Your task to perform on an android device: check out phone information Image 0: 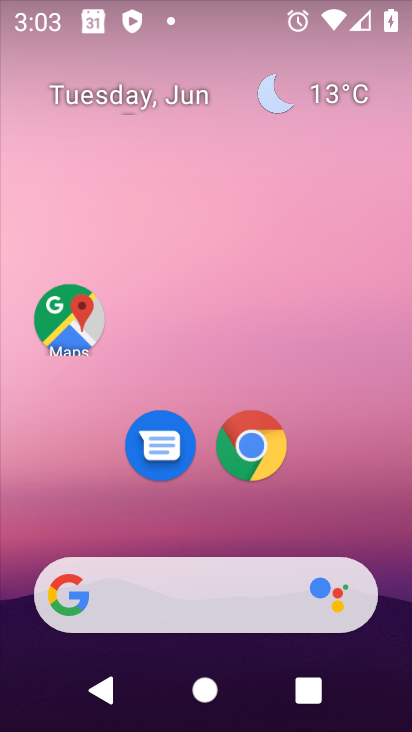
Step 0: drag from (394, 617) to (350, 140)
Your task to perform on an android device: check out phone information Image 1: 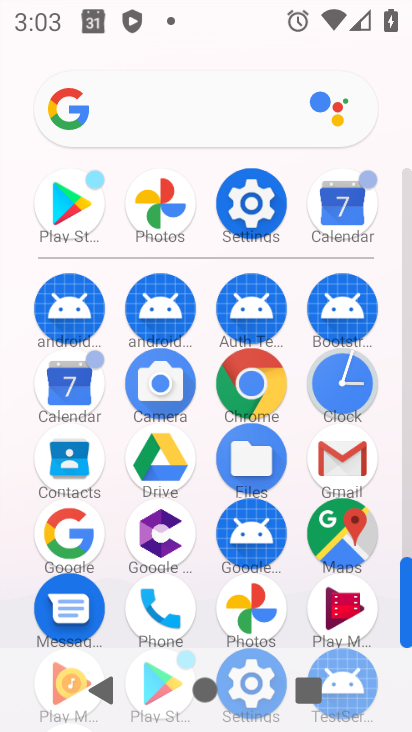
Step 1: click (406, 517)
Your task to perform on an android device: check out phone information Image 2: 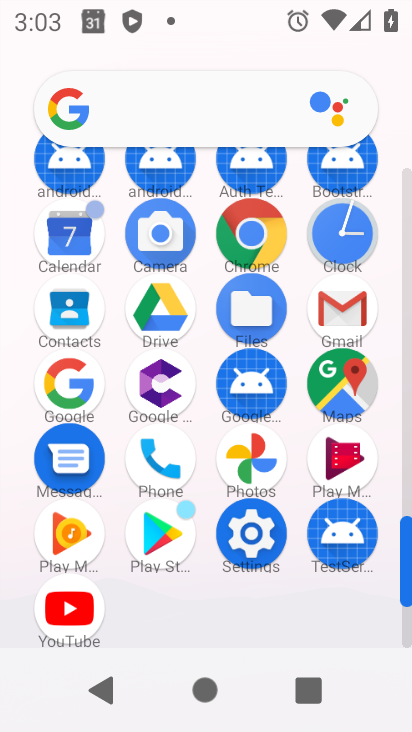
Step 2: click (254, 535)
Your task to perform on an android device: check out phone information Image 3: 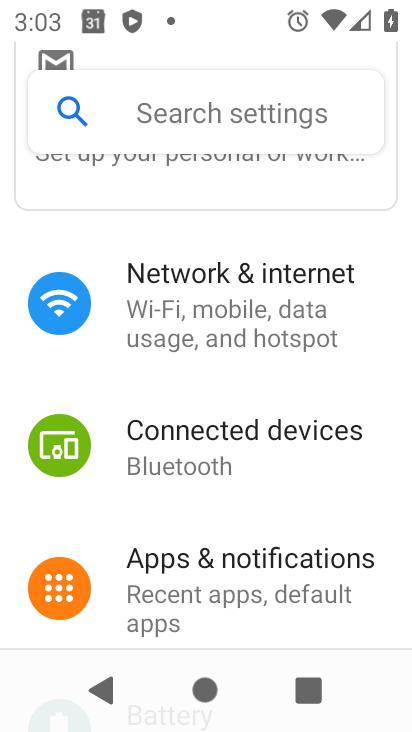
Step 3: drag from (360, 619) to (318, 205)
Your task to perform on an android device: check out phone information Image 4: 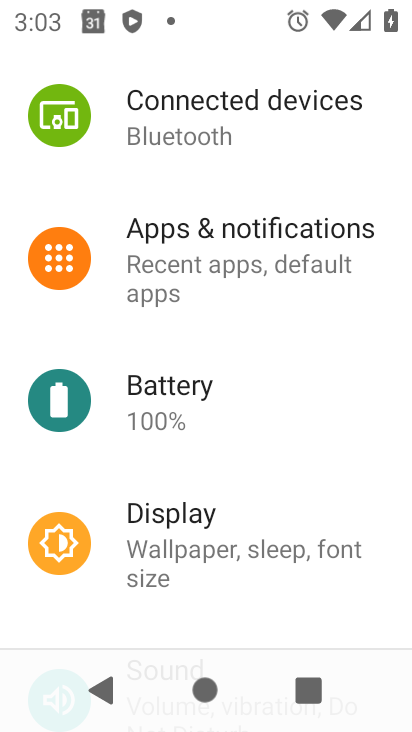
Step 4: drag from (367, 590) to (307, 217)
Your task to perform on an android device: check out phone information Image 5: 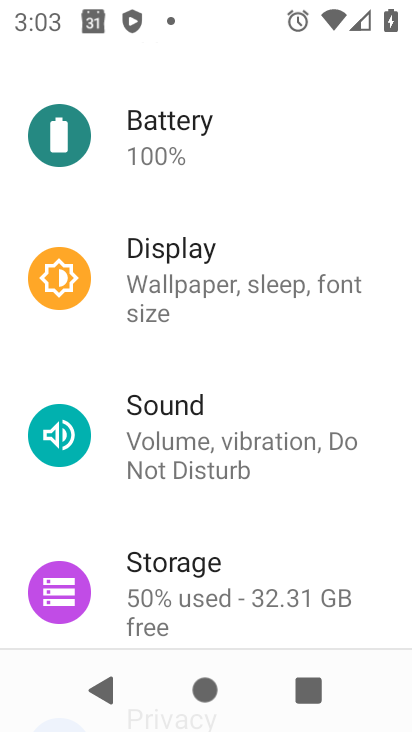
Step 5: drag from (342, 522) to (326, 73)
Your task to perform on an android device: check out phone information Image 6: 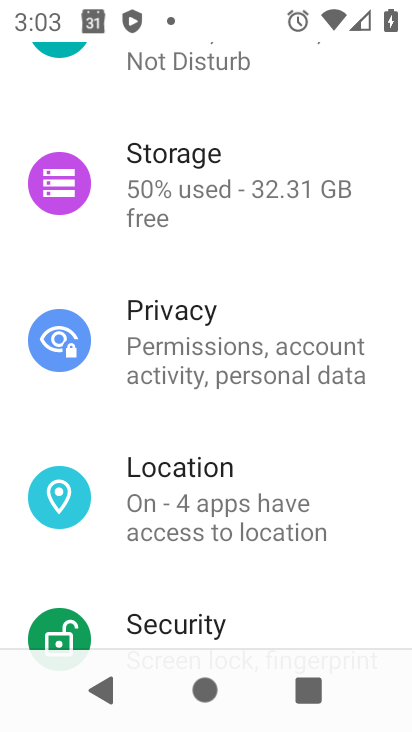
Step 6: drag from (326, 492) to (307, 255)
Your task to perform on an android device: check out phone information Image 7: 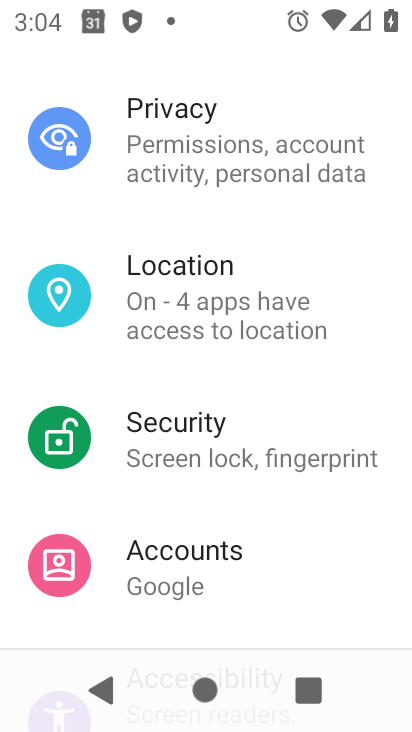
Step 7: drag from (322, 573) to (343, 235)
Your task to perform on an android device: check out phone information Image 8: 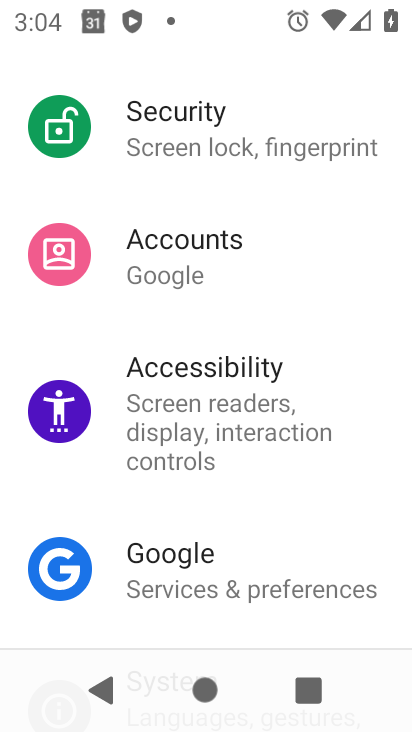
Step 8: drag from (323, 569) to (325, 269)
Your task to perform on an android device: check out phone information Image 9: 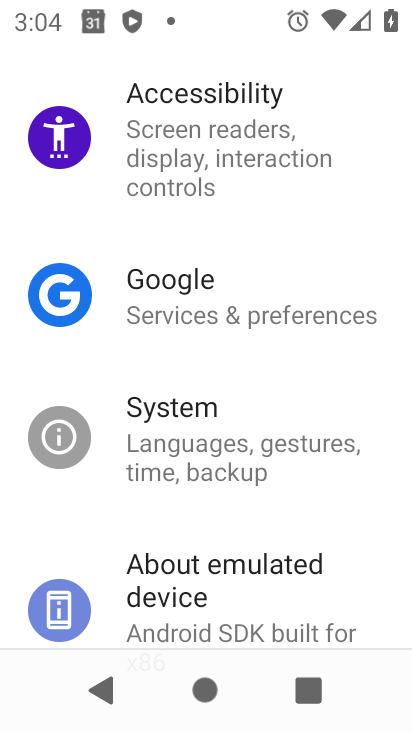
Step 9: click (191, 585)
Your task to perform on an android device: check out phone information Image 10: 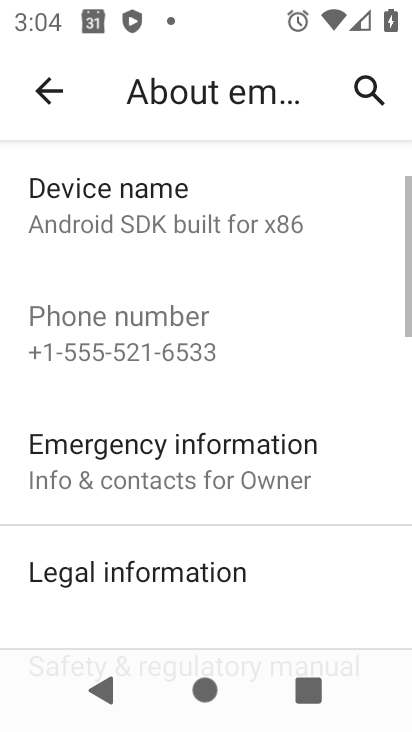
Step 10: click (336, 566)
Your task to perform on an android device: check out phone information Image 11: 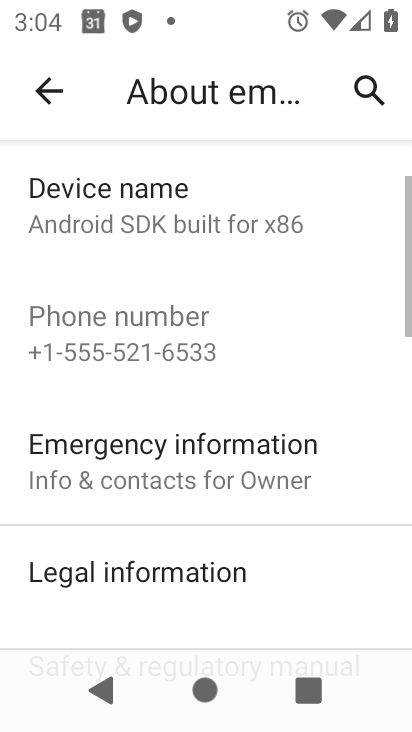
Step 11: task complete